Your task to perform on an android device: Open calendar and show me the fourth week of next month Image 0: 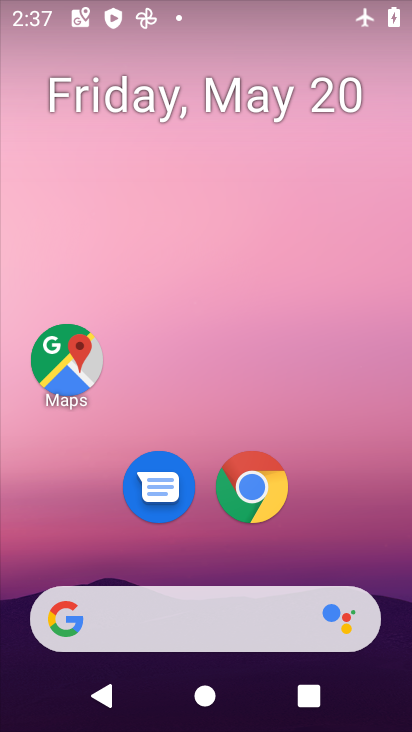
Step 0: drag from (375, 523) to (310, 91)
Your task to perform on an android device: Open calendar and show me the fourth week of next month Image 1: 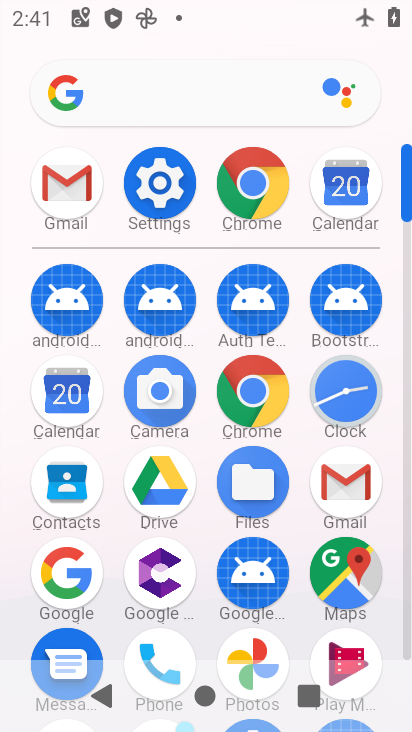
Step 1: click (361, 197)
Your task to perform on an android device: Open calendar and show me the fourth week of next month Image 2: 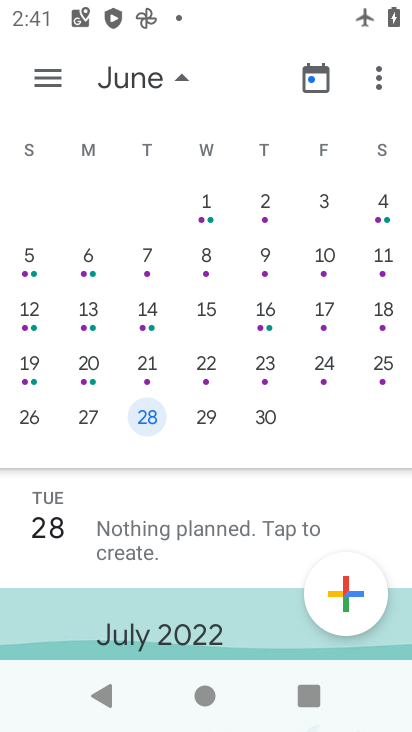
Step 2: drag from (341, 247) to (8, 319)
Your task to perform on an android device: Open calendar and show me the fourth week of next month Image 3: 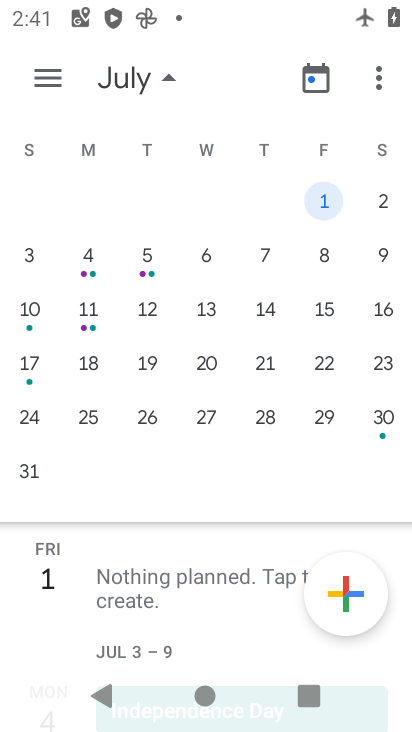
Step 3: click (262, 417)
Your task to perform on an android device: Open calendar and show me the fourth week of next month Image 4: 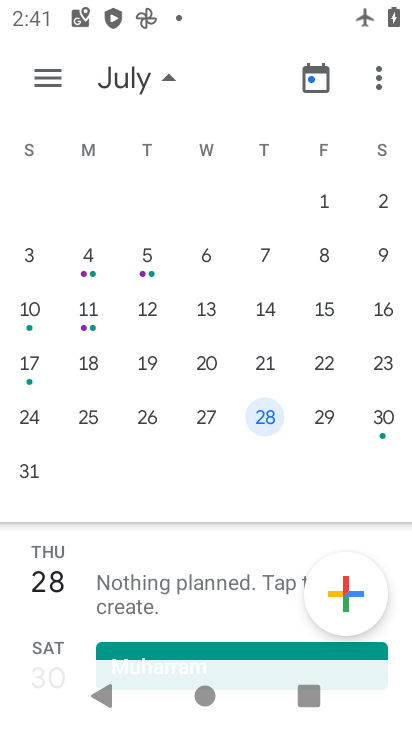
Step 4: task complete